Your task to perform on an android device: toggle data saver in the chrome app Image 0: 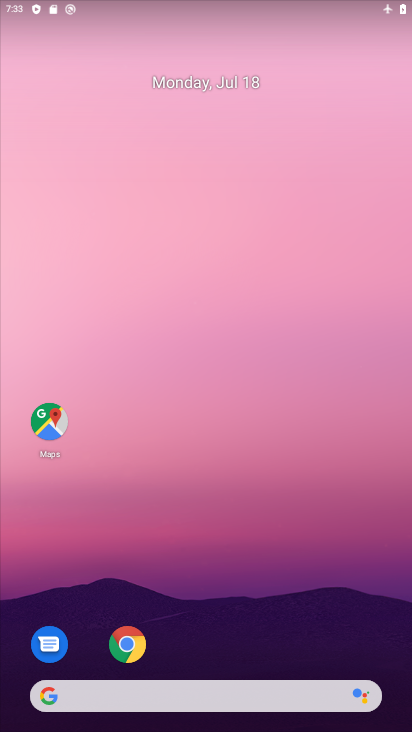
Step 0: drag from (386, 609) to (405, 143)
Your task to perform on an android device: toggle data saver in the chrome app Image 1: 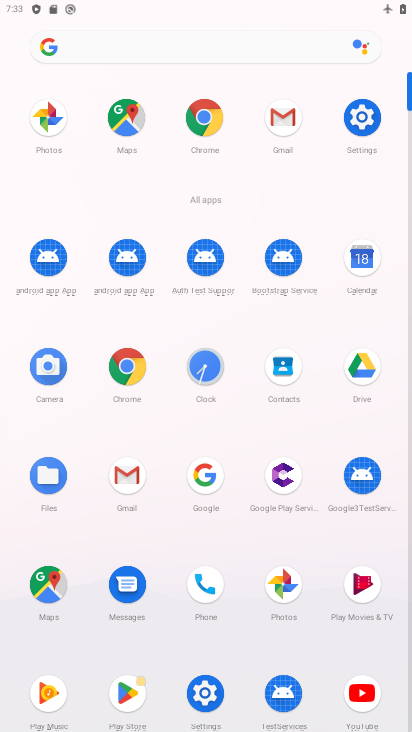
Step 1: click (126, 368)
Your task to perform on an android device: toggle data saver in the chrome app Image 2: 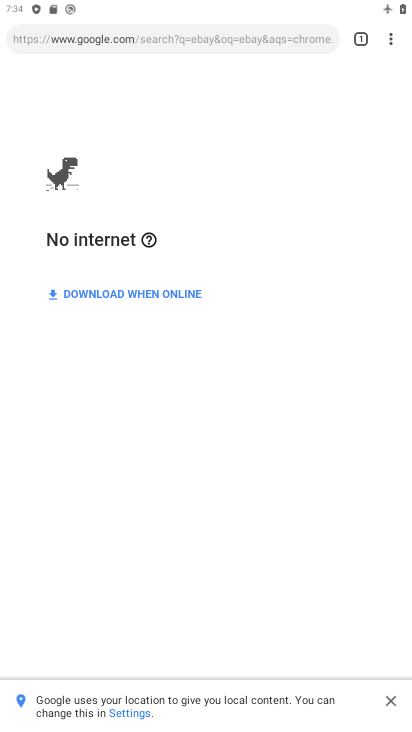
Step 2: click (391, 37)
Your task to perform on an android device: toggle data saver in the chrome app Image 3: 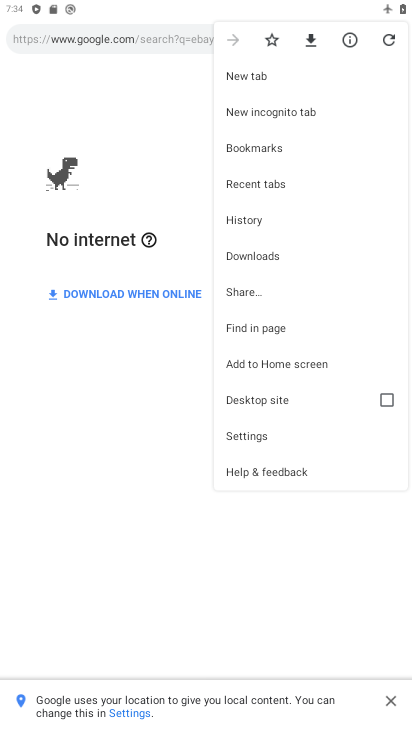
Step 3: click (265, 436)
Your task to perform on an android device: toggle data saver in the chrome app Image 4: 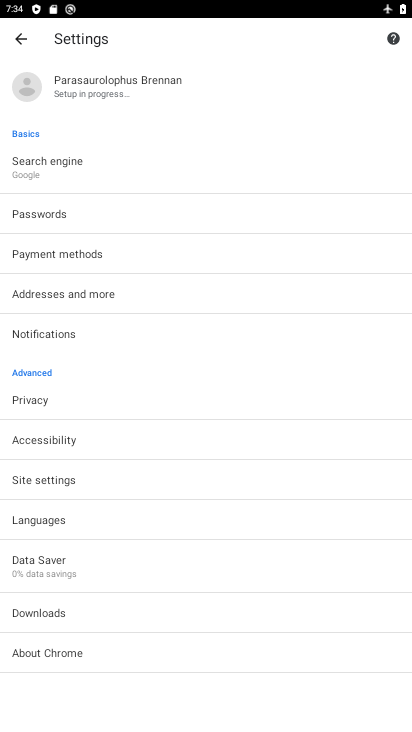
Step 4: click (263, 569)
Your task to perform on an android device: toggle data saver in the chrome app Image 5: 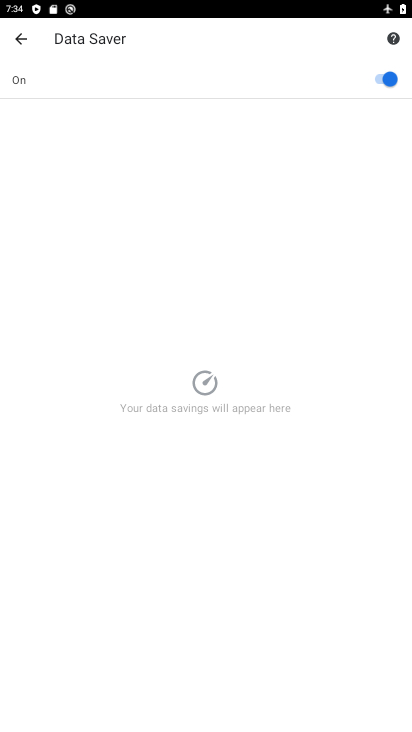
Step 5: click (391, 79)
Your task to perform on an android device: toggle data saver in the chrome app Image 6: 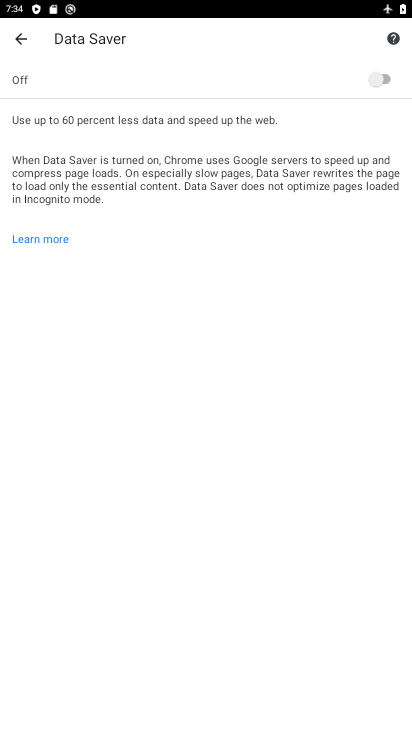
Step 6: task complete